Your task to perform on an android device: check the backup settings in the google photos Image 0: 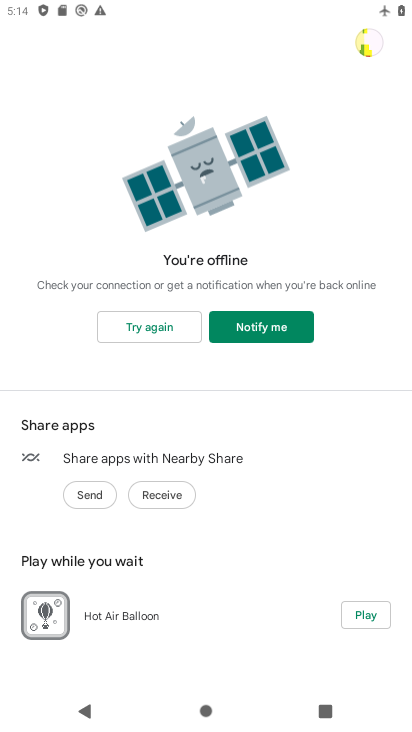
Step 0: press home button
Your task to perform on an android device: check the backup settings in the google photos Image 1: 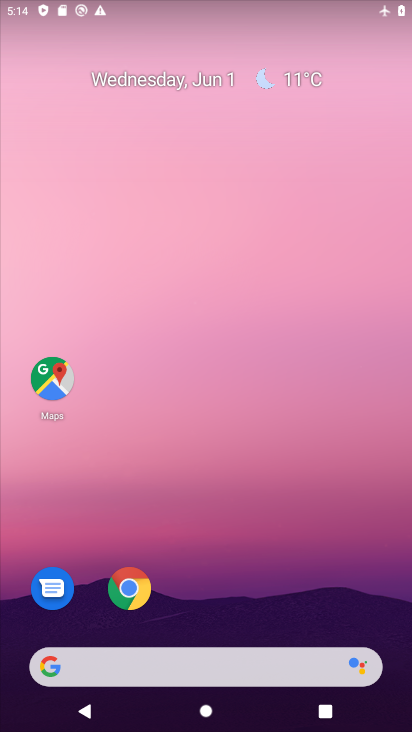
Step 1: click (268, 291)
Your task to perform on an android device: check the backup settings in the google photos Image 2: 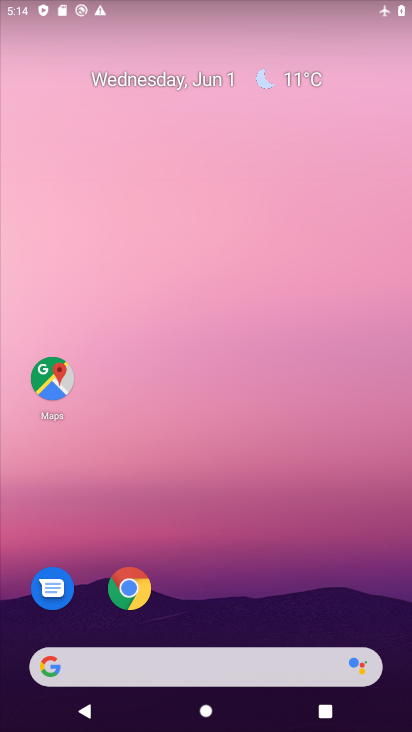
Step 2: drag from (210, 638) to (266, 212)
Your task to perform on an android device: check the backup settings in the google photos Image 3: 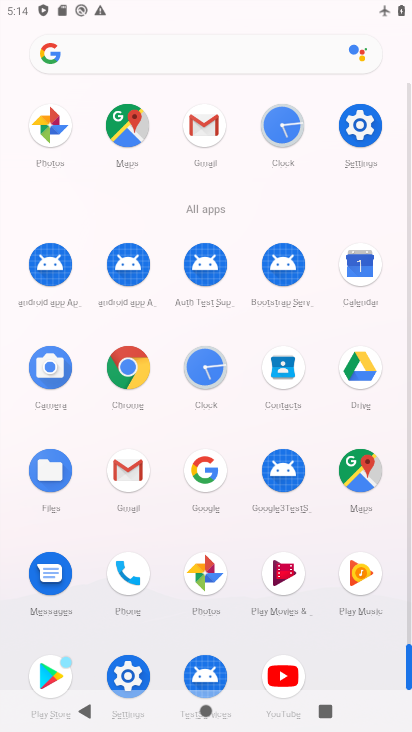
Step 3: click (203, 579)
Your task to perform on an android device: check the backup settings in the google photos Image 4: 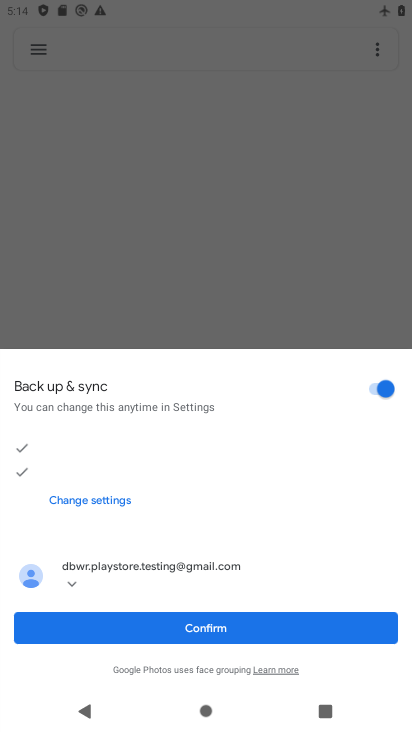
Step 4: click (48, 63)
Your task to perform on an android device: check the backup settings in the google photos Image 5: 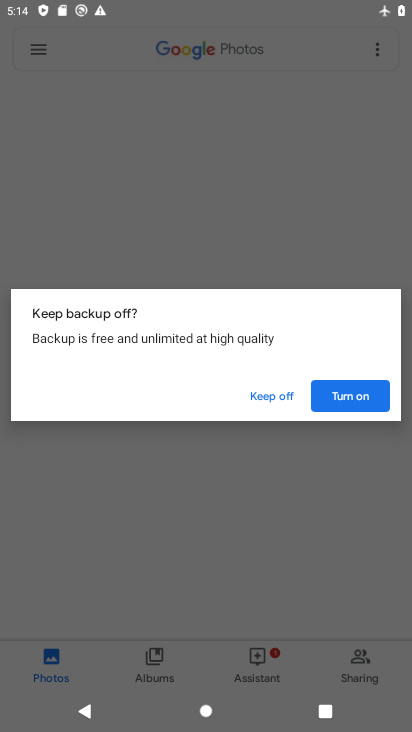
Step 5: click (393, 392)
Your task to perform on an android device: check the backup settings in the google photos Image 6: 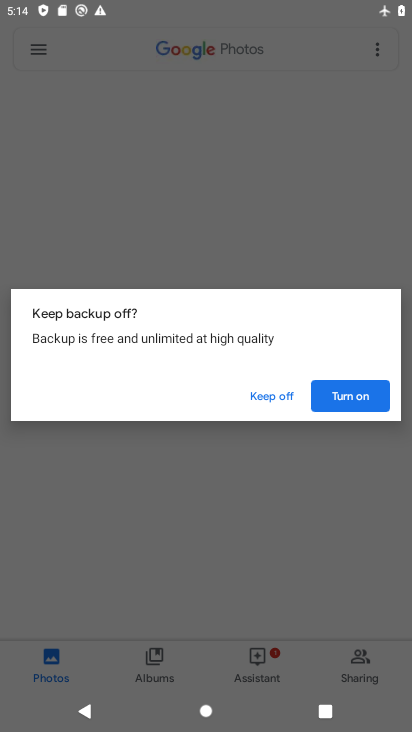
Step 6: click (368, 395)
Your task to perform on an android device: check the backup settings in the google photos Image 7: 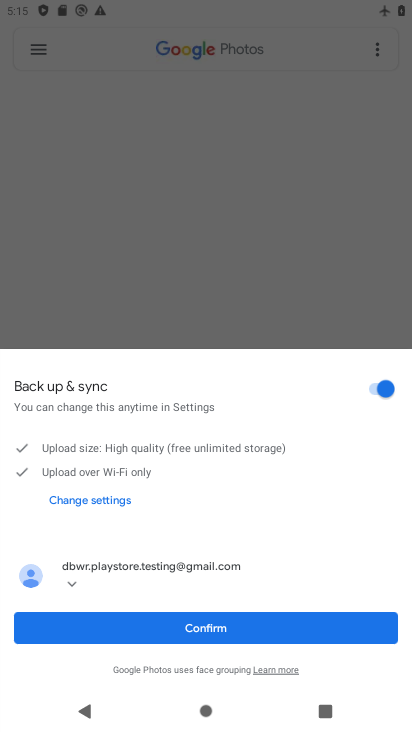
Step 7: click (233, 640)
Your task to perform on an android device: check the backup settings in the google photos Image 8: 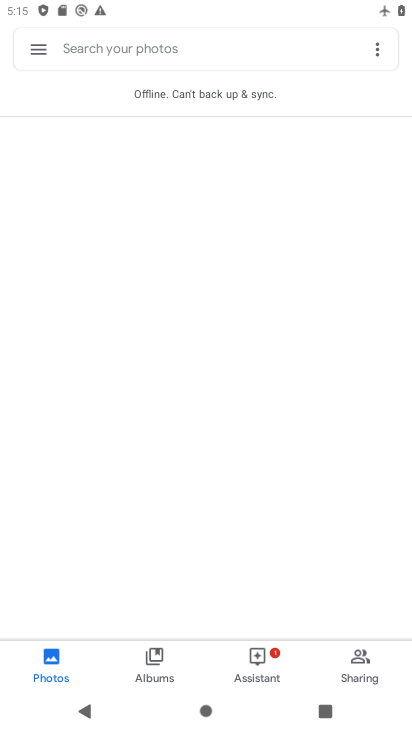
Step 8: click (61, 46)
Your task to perform on an android device: check the backup settings in the google photos Image 9: 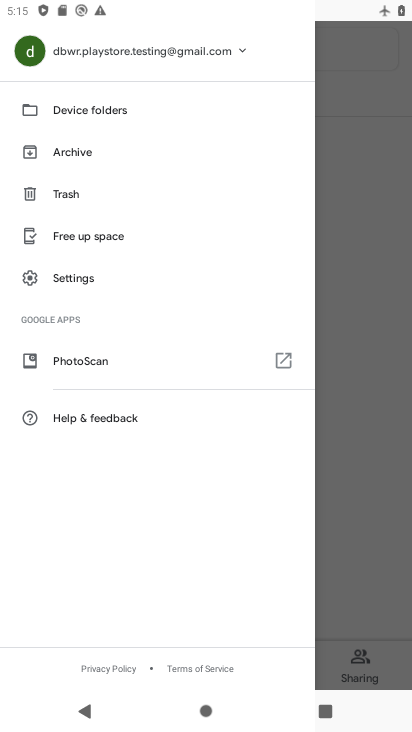
Step 9: click (143, 285)
Your task to perform on an android device: check the backup settings in the google photos Image 10: 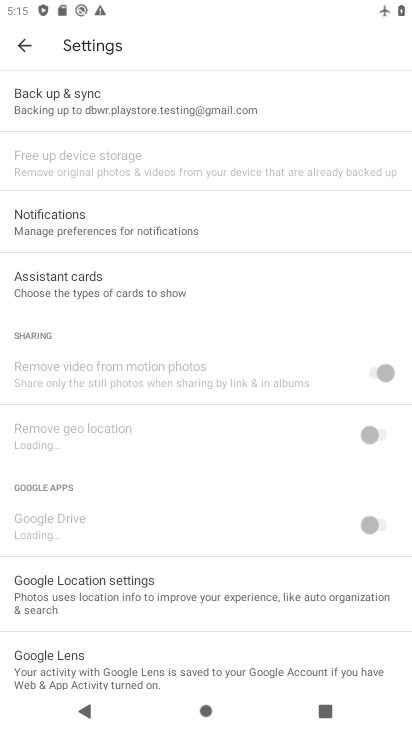
Step 10: click (218, 111)
Your task to perform on an android device: check the backup settings in the google photos Image 11: 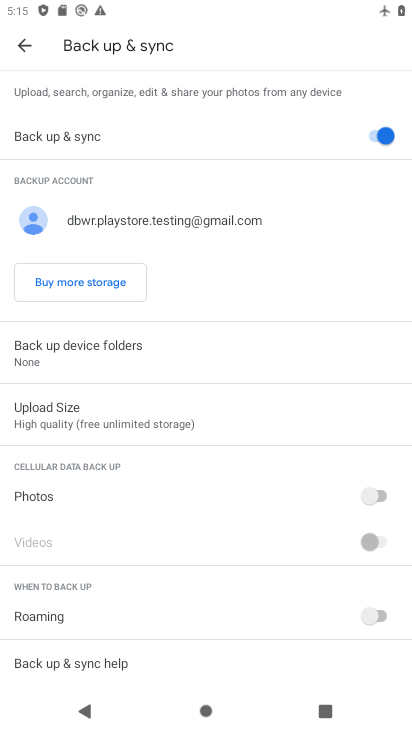
Step 11: task complete